Your task to perform on an android device: Empty the shopping cart on target. Search for "jbl flip 4" on target, select the first entry, and add it to the cart. Image 0: 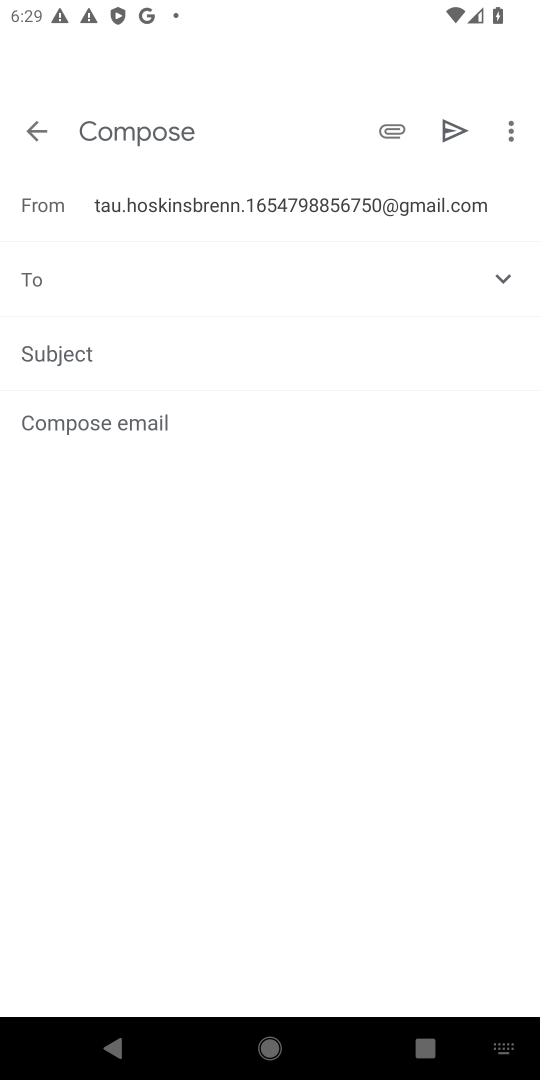
Step 0: press home button
Your task to perform on an android device: Empty the shopping cart on target. Search for "jbl flip 4" on target, select the first entry, and add it to the cart. Image 1: 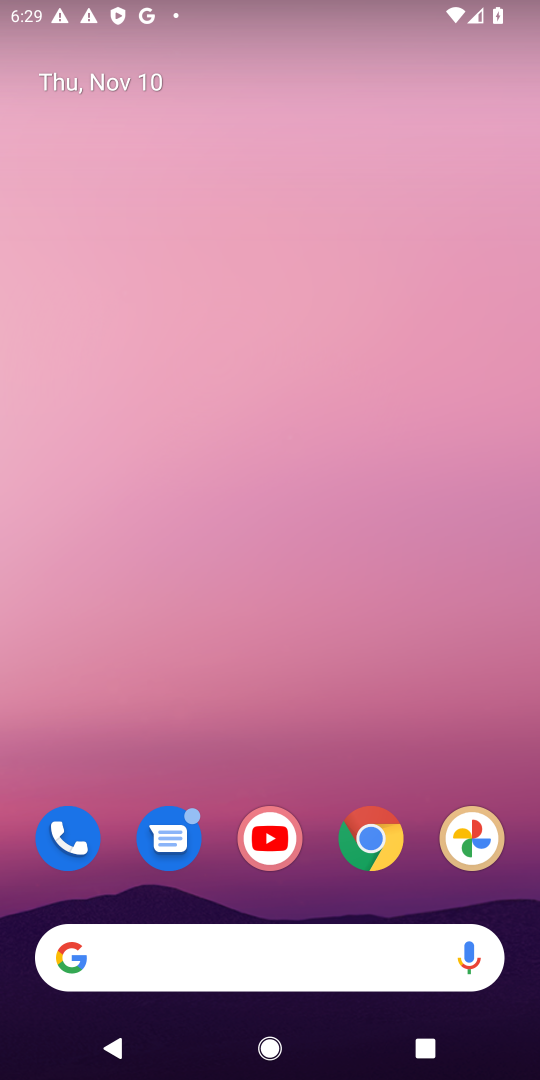
Step 1: drag from (303, 909) to (351, 2)
Your task to perform on an android device: Empty the shopping cart on target. Search for "jbl flip 4" on target, select the first entry, and add it to the cart. Image 2: 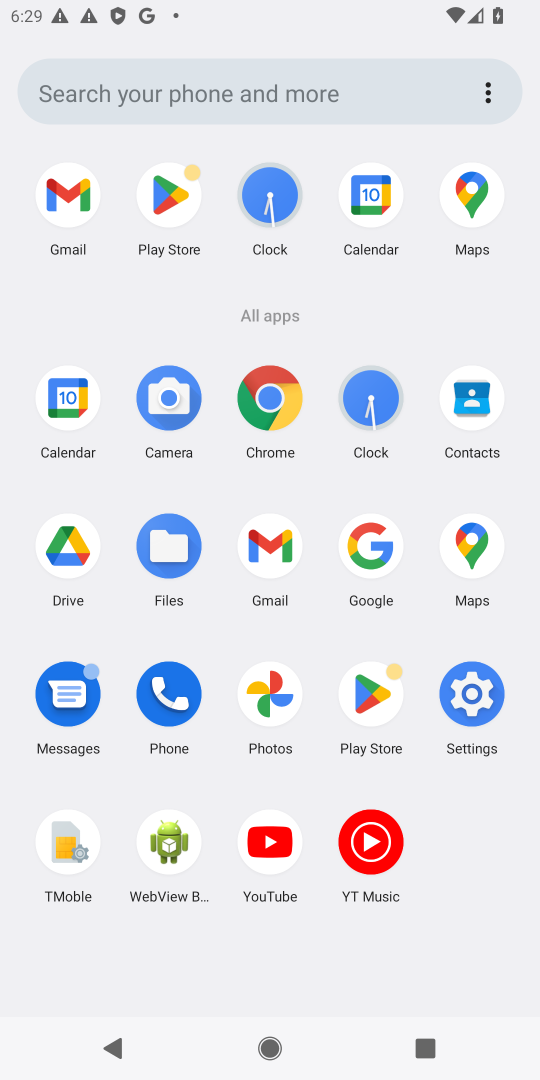
Step 2: click (265, 395)
Your task to perform on an android device: Empty the shopping cart on target. Search for "jbl flip 4" on target, select the first entry, and add it to the cart. Image 3: 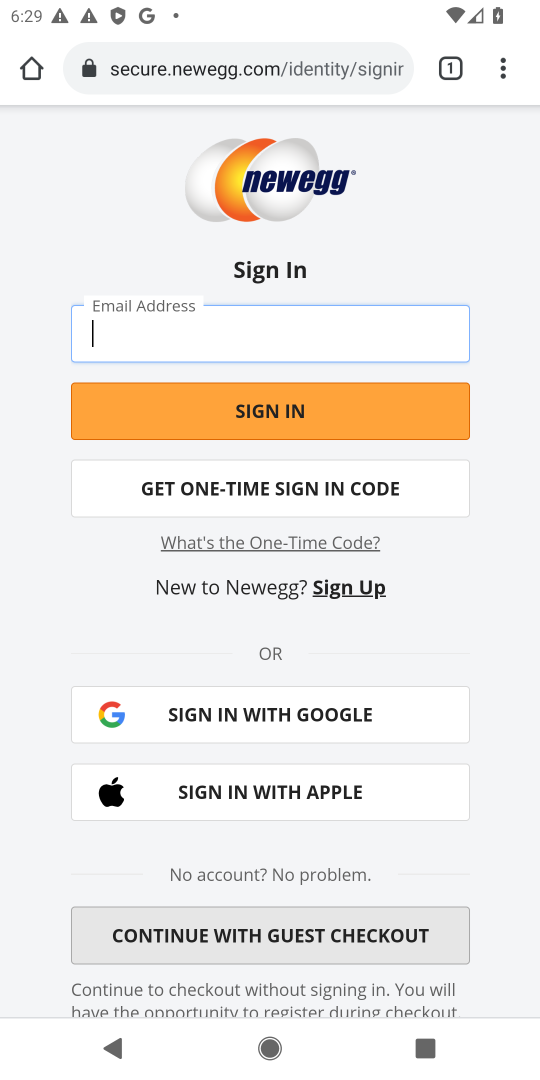
Step 3: click (302, 70)
Your task to perform on an android device: Empty the shopping cart on target. Search for "jbl flip 4" on target, select the first entry, and add it to the cart. Image 4: 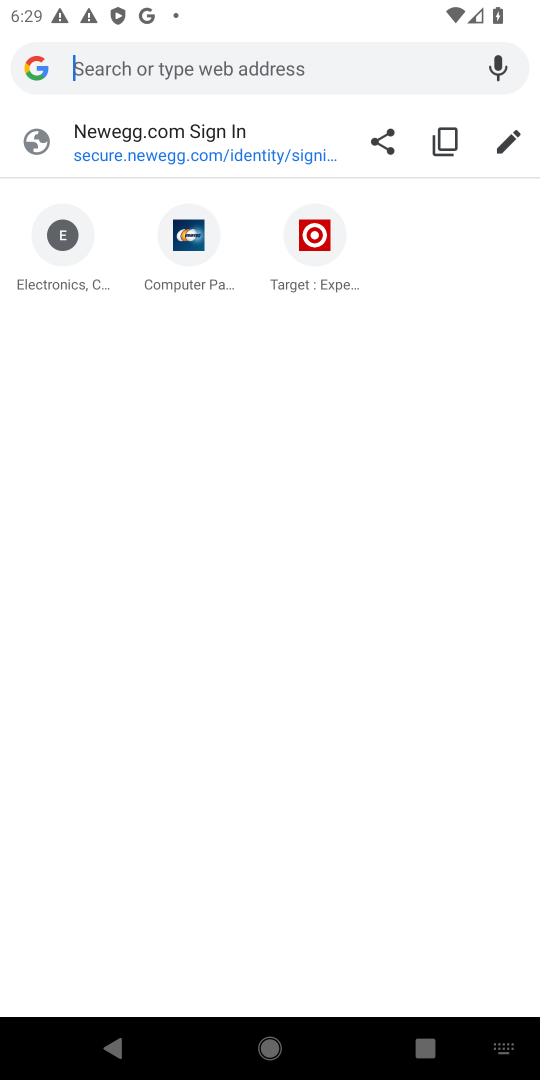
Step 4: type "target.com"
Your task to perform on an android device: Empty the shopping cart on target. Search for "jbl flip 4" on target, select the first entry, and add it to the cart. Image 5: 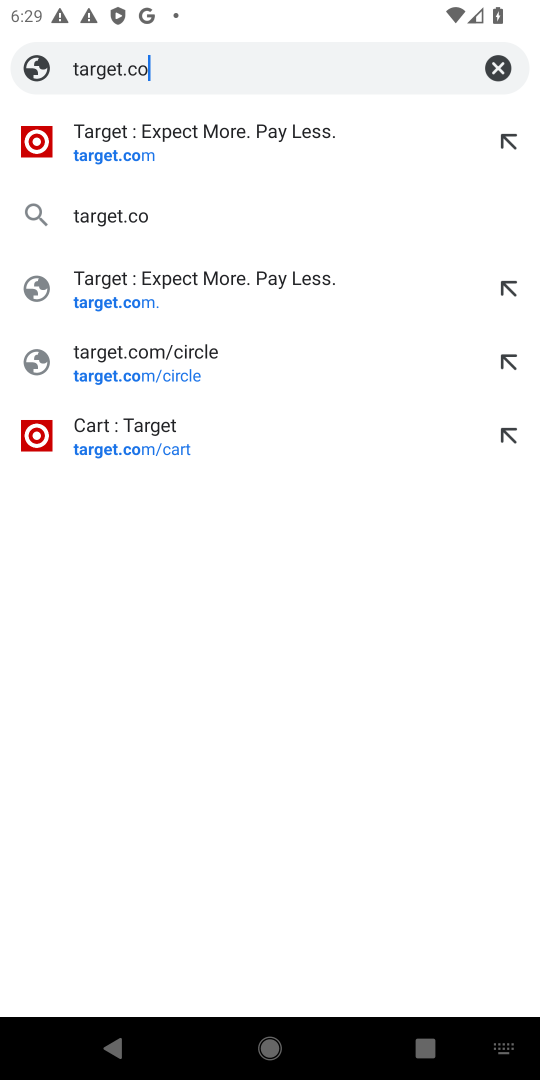
Step 5: press enter
Your task to perform on an android device: Empty the shopping cart on target. Search for "jbl flip 4" on target, select the first entry, and add it to the cart. Image 6: 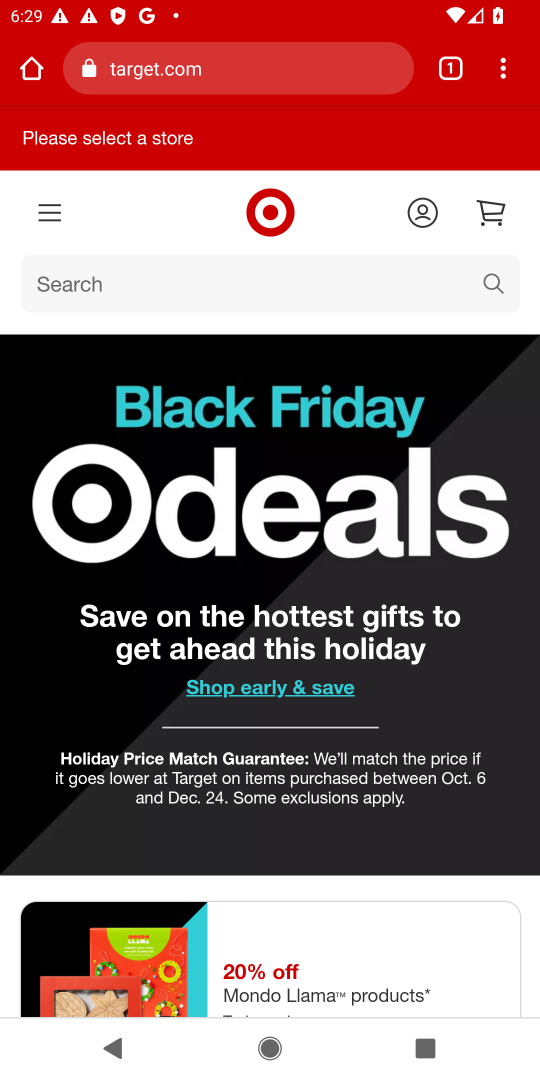
Step 6: click (311, 278)
Your task to perform on an android device: Empty the shopping cart on target. Search for "jbl flip 4" on target, select the first entry, and add it to the cart. Image 7: 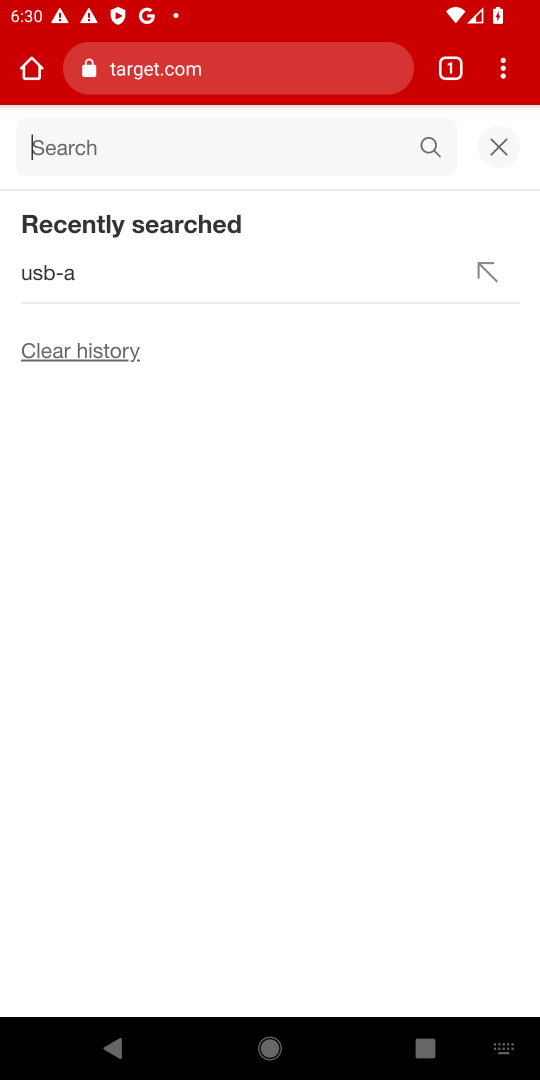
Step 7: type "jbl flip 4"
Your task to perform on an android device: Empty the shopping cart on target. Search for "jbl flip 4" on target, select the first entry, and add it to the cart. Image 8: 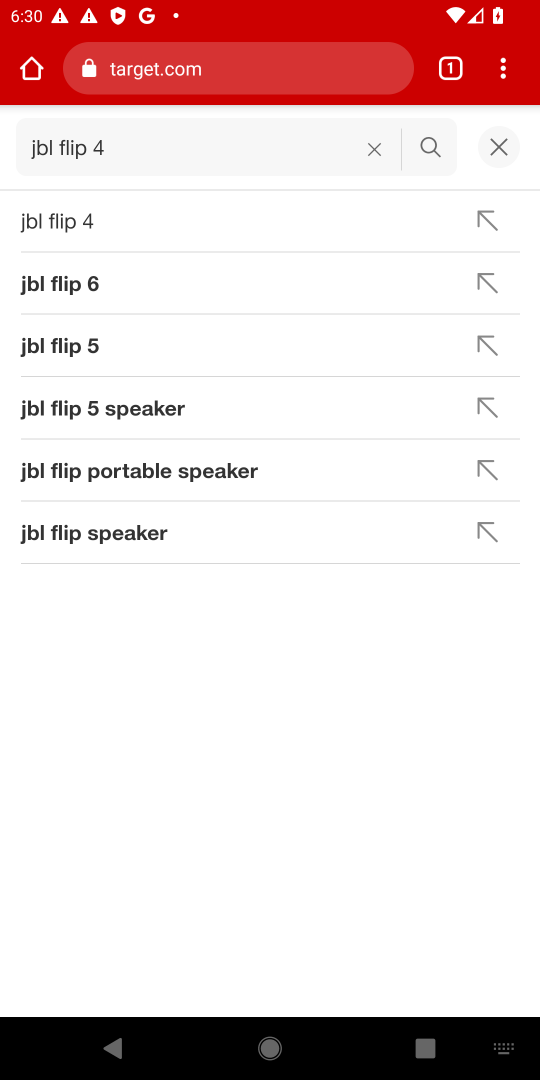
Step 8: press enter
Your task to perform on an android device: Empty the shopping cart on target. Search for "jbl flip 4" on target, select the first entry, and add it to the cart. Image 9: 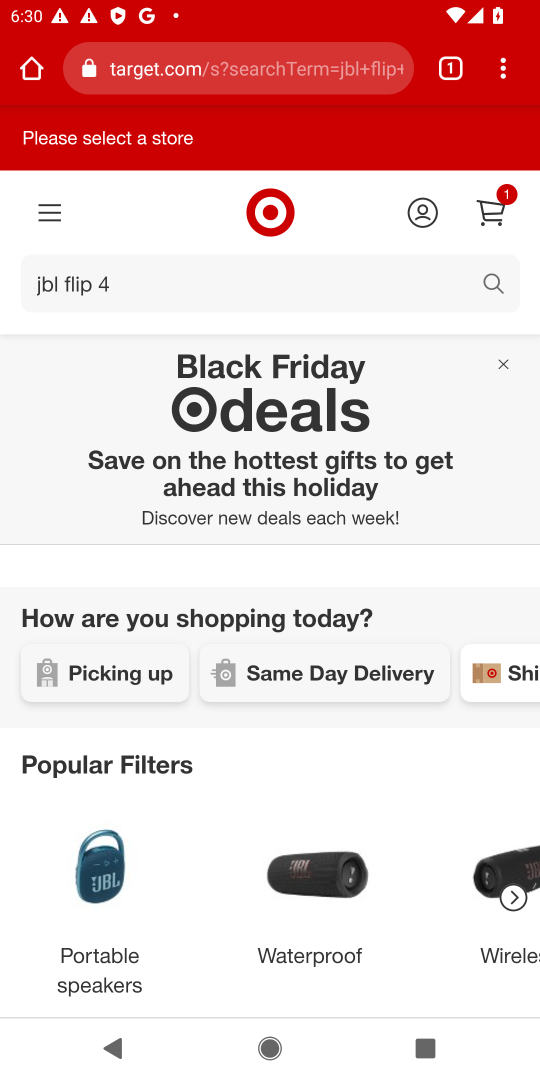
Step 9: task complete